Your task to perform on an android device: Turn off the flashlight Image 0: 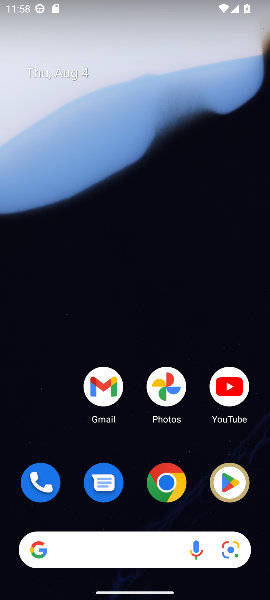
Step 0: drag from (144, 444) to (148, 157)
Your task to perform on an android device: Turn off the flashlight Image 1: 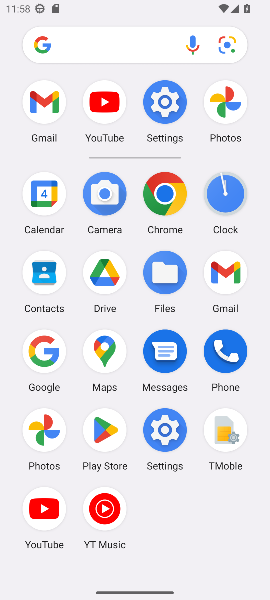
Step 1: task complete